Your task to perform on an android device: Go to display settings Image 0: 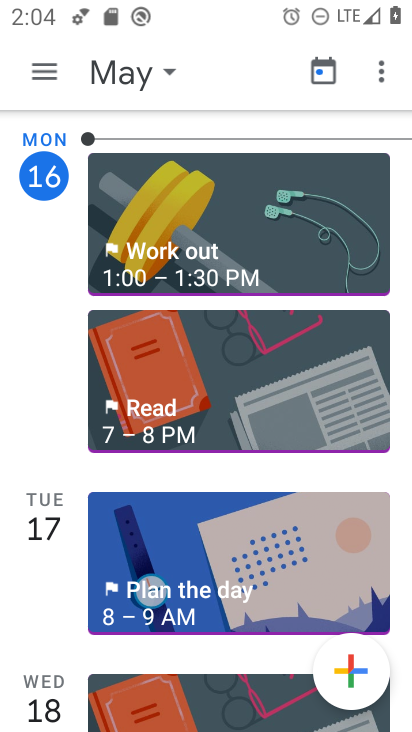
Step 0: press home button
Your task to perform on an android device: Go to display settings Image 1: 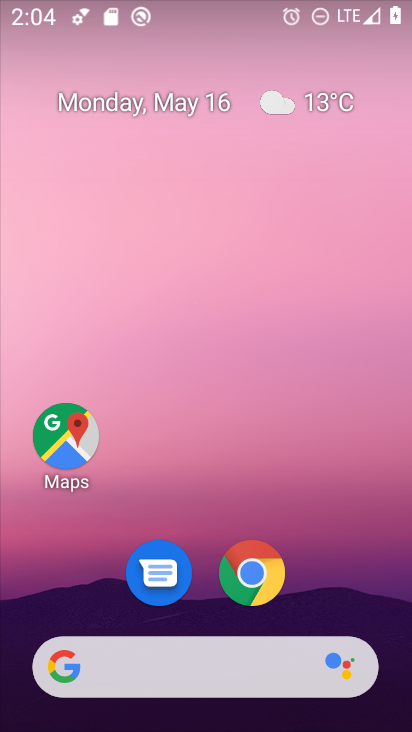
Step 1: drag from (191, 680) to (2, 94)
Your task to perform on an android device: Go to display settings Image 2: 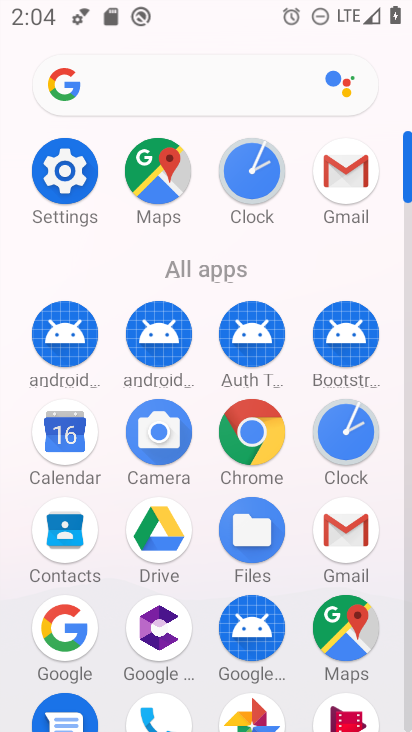
Step 2: click (52, 170)
Your task to perform on an android device: Go to display settings Image 3: 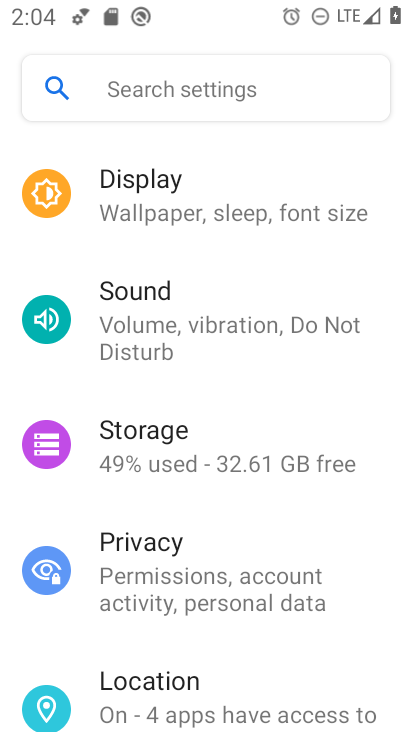
Step 3: click (112, 196)
Your task to perform on an android device: Go to display settings Image 4: 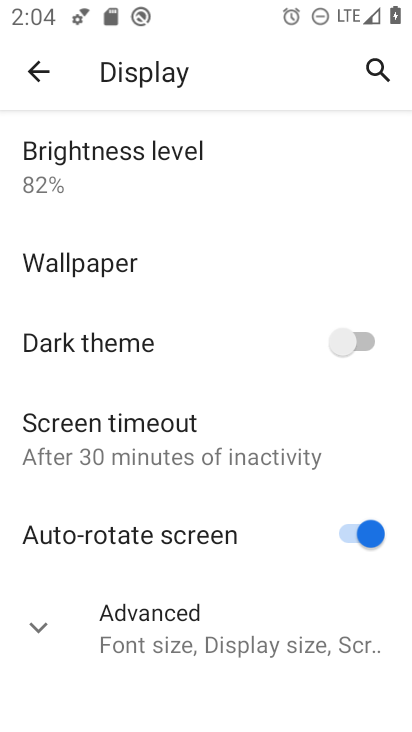
Step 4: task complete